Your task to perform on an android device: change the clock display to digital Image 0: 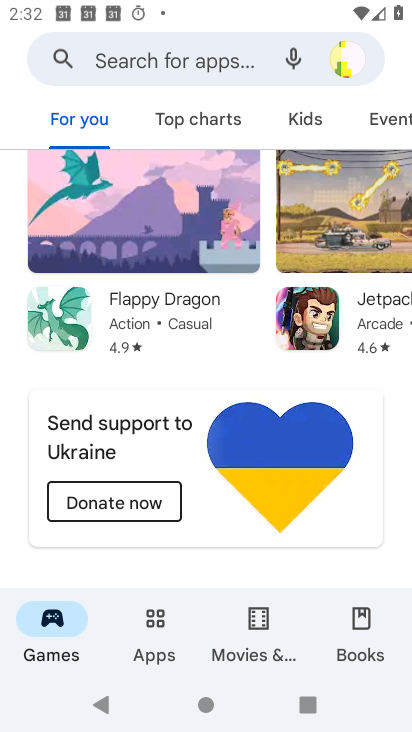
Step 0: drag from (239, 521) to (346, 189)
Your task to perform on an android device: change the clock display to digital Image 1: 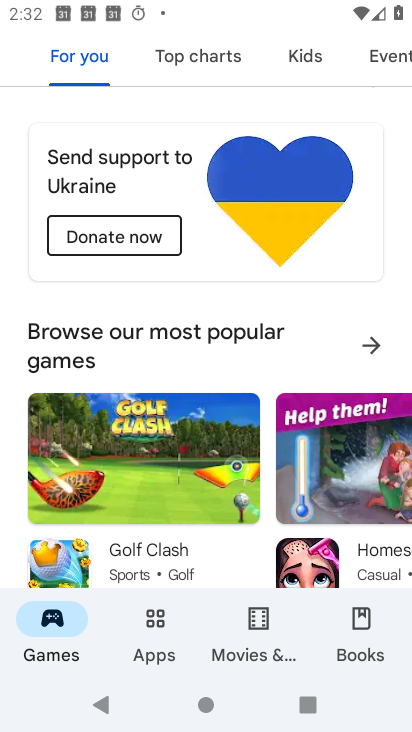
Step 1: drag from (80, 225) to (369, 685)
Your task to perform on an android device: change the clock display to digital Image 2: 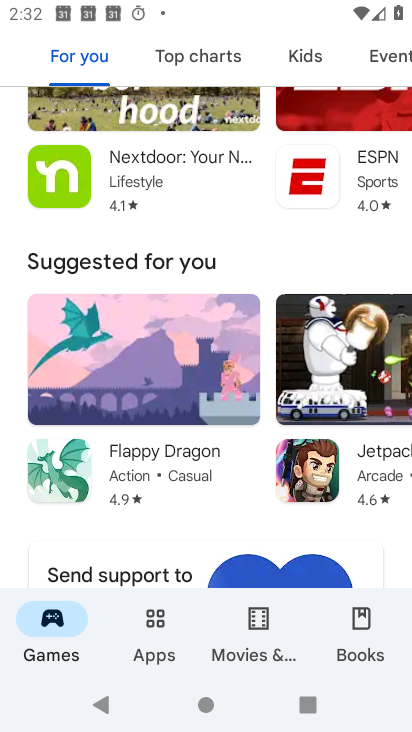
Step 2: press home button
Your task to perform on an android device: change the clock display to digital Image 3: 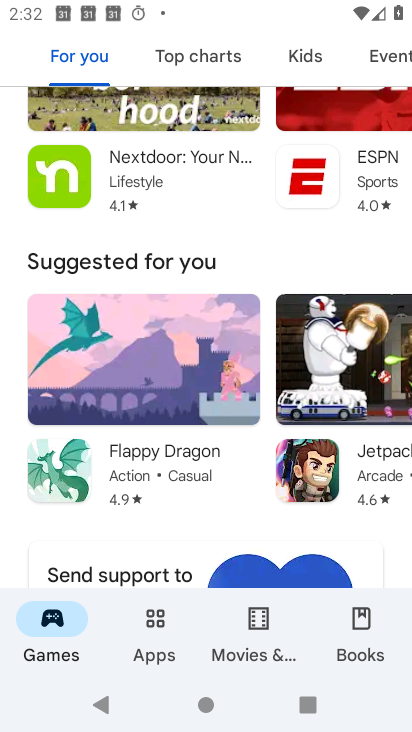
Step 3: drag from (282, 355) to (385, 3)
Your task to perform on an android device: change the clock display to digital Image 4: 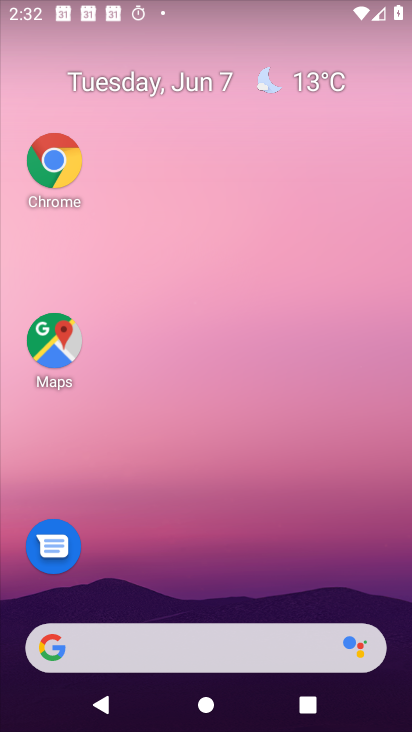
Step 4: drag from (203, 562) to (235, 108)
Your task to perform on an android device: change the clock display to digital Image 5: 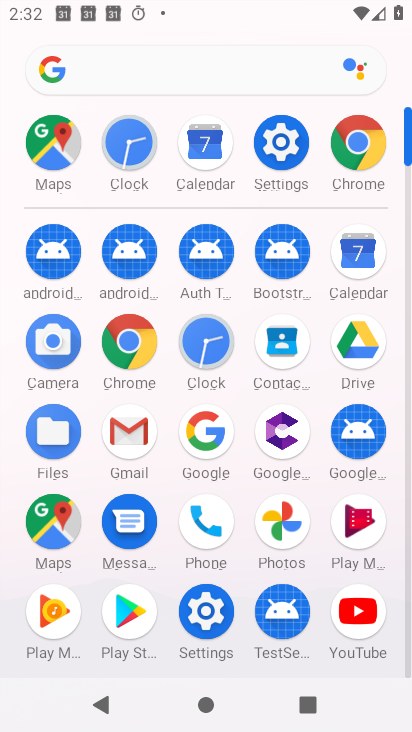
Step 5: click (222, 340)
Your task to perform on an android device: change the clock display to digital Image 6: 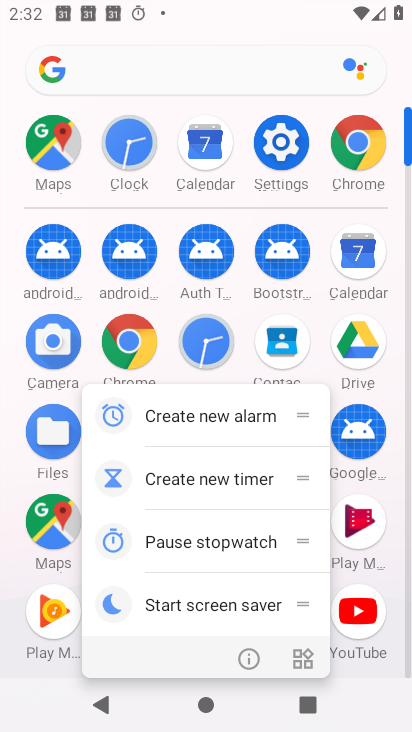
Step 6: click (248, 656)
Your task to perform on an android device: change the clock display to digital Image 7: 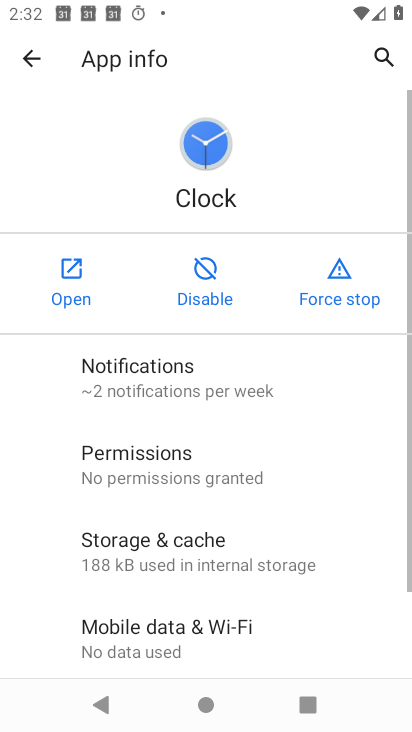
Step 7: click (70, 300)
Your task to perform on an android device: change the clock display to digital Image 8: 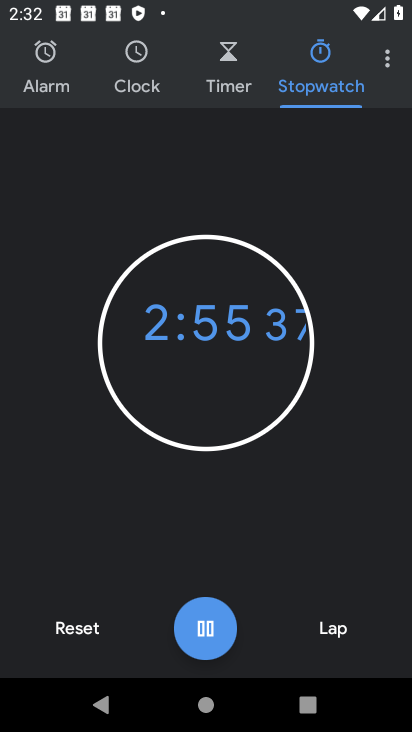
Step 8: click (387, 62)
Your task to perform on an android device: change the clock display to digital Image 9: 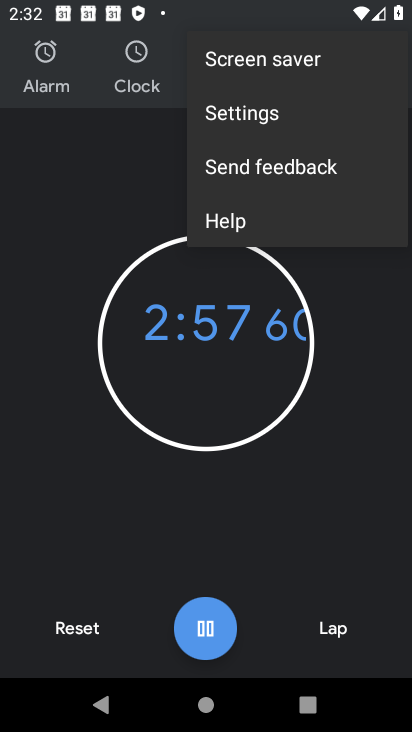
Step 9: click (255, 116)
Your task to perform on an android device: change the clock display to digital Image 10: 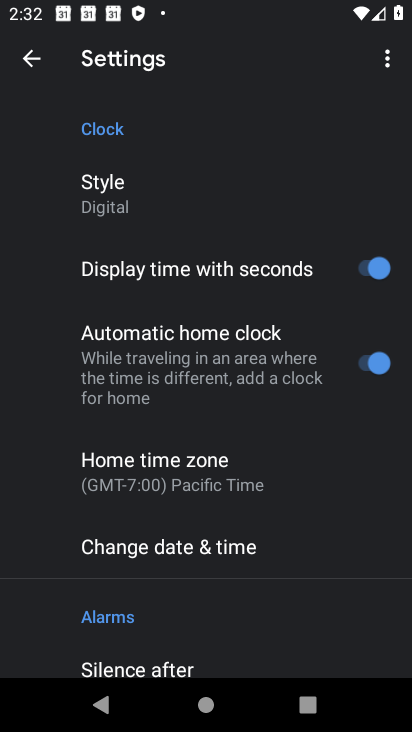
Step 10: click (140, 179)
Your task to perform on an android device: change the clock display to digital Image 11: 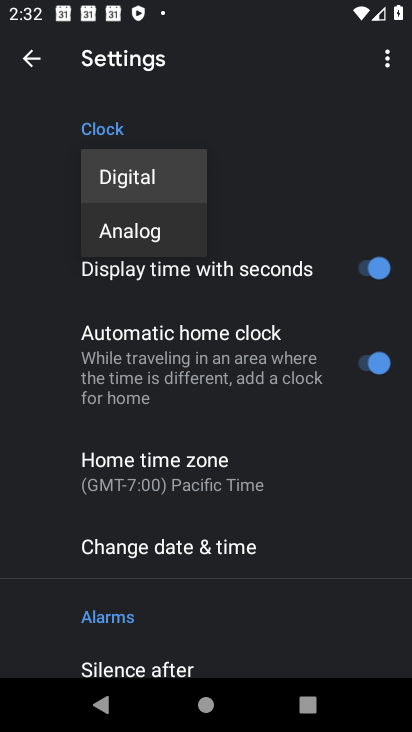
Step 11: click (140, 187)
Your task to perform on an android device: change the clock display to digital Image 12: 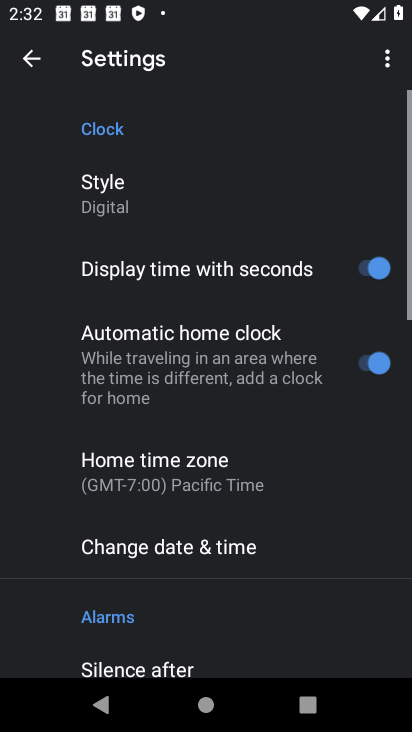
Step 12: task complete